Your task to perform on an android device: search for starred emails in the gmail app Image 0: 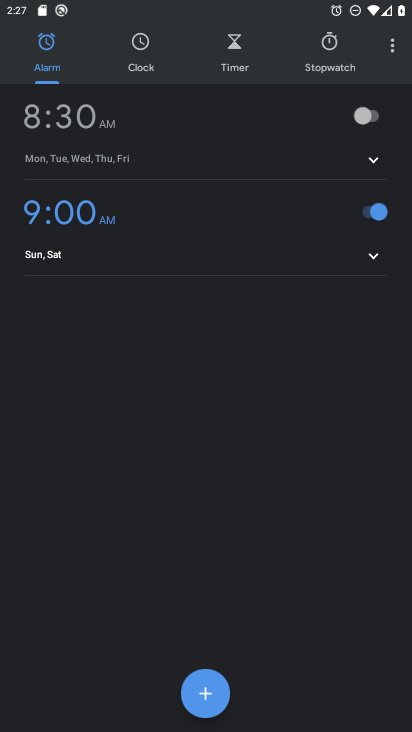
Step 0: press back button
Your task to perform on an android device: search for starred emails in the gmail app Image 1: 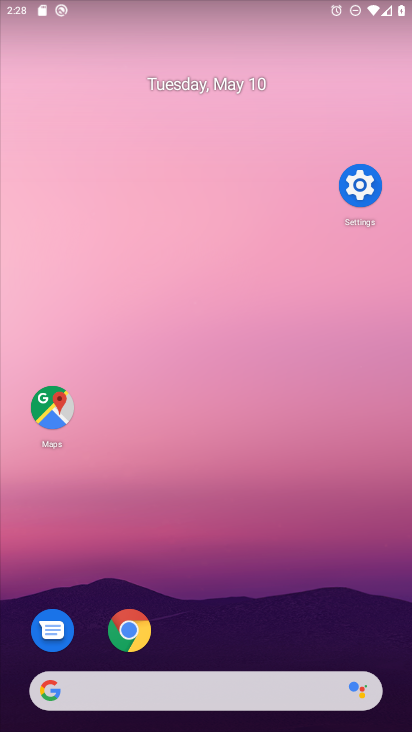
Step 1: drag from (304, 621) to (203, 207)
Your task to perform on an android device: search for starred emails in the gmail app Image 2: 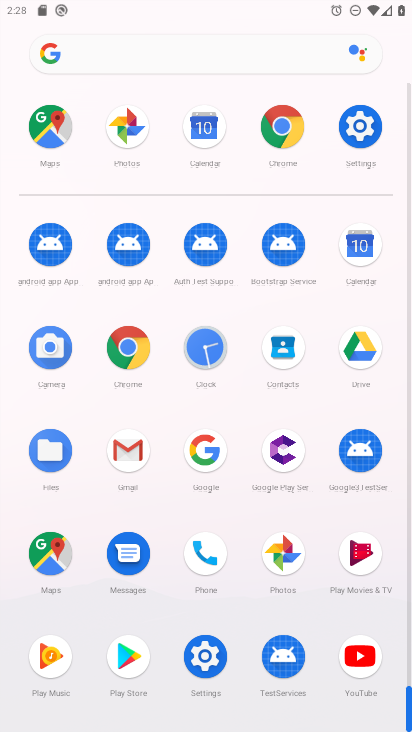
Step 2: click (119, 445)
Your task to perform on an android device: search for starred emails in the gmail app Image 3: 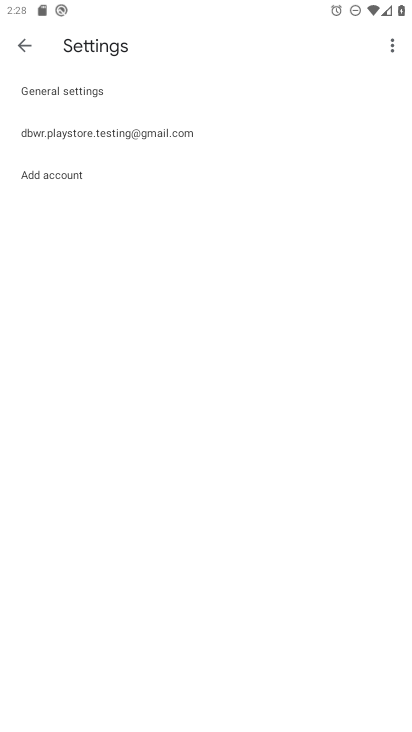
Step 3: click (92, 124)
Your task to perform on an android device: search for starred emails in the gmail app Image 4: 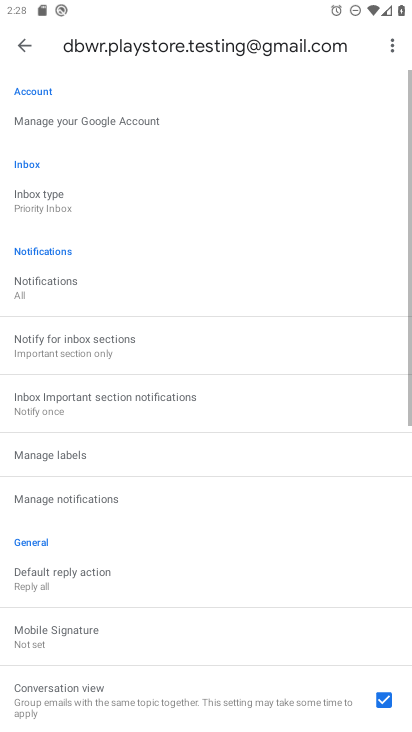
Step 4: click (23, 46)
Your task to perform on an android device: search for starred emails in the gmail app Image 5: 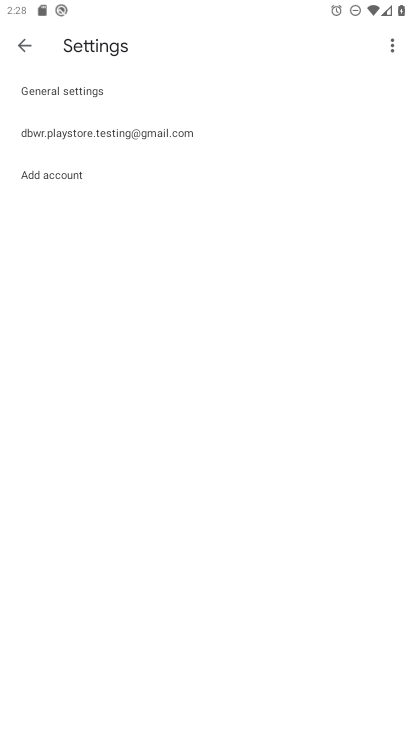
Step 5: click (26, 50)
Your task to perform on an android device: search for starred emails in the gmail app Image 6: 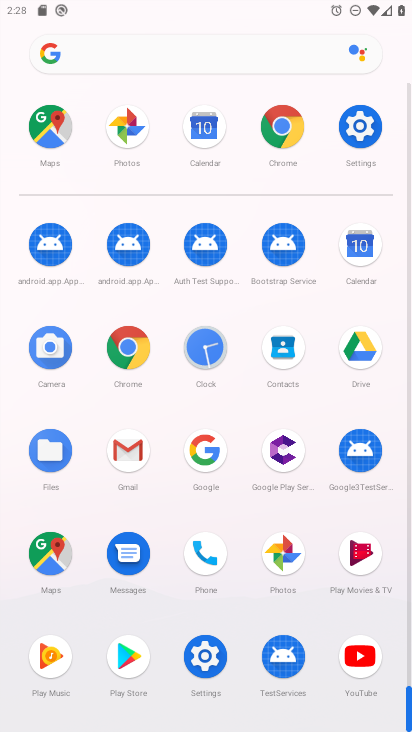
Step 6: click (131, 442)
Your task to perform on an android device: search for starred emails in the gmail app Image 7: 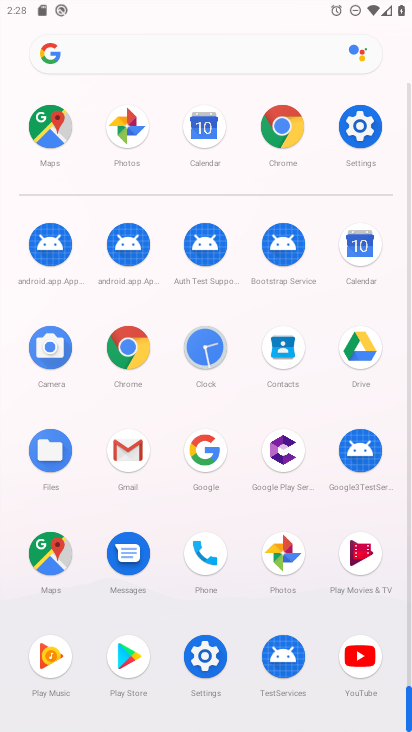
Step 7: click (131, 442)
Your task to perform on an android device: search for starred emails in the gmail app Image 8: 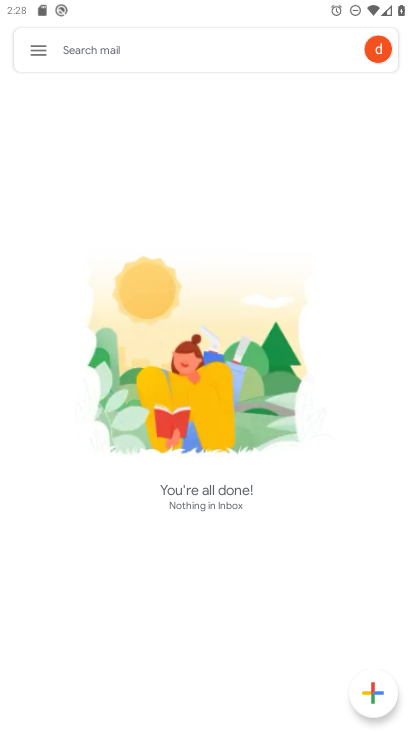
Step 8: drag from (36, 46) to (42, 148)
Your task to perform on an android device: search for starred emails in the gmail app Image 9: 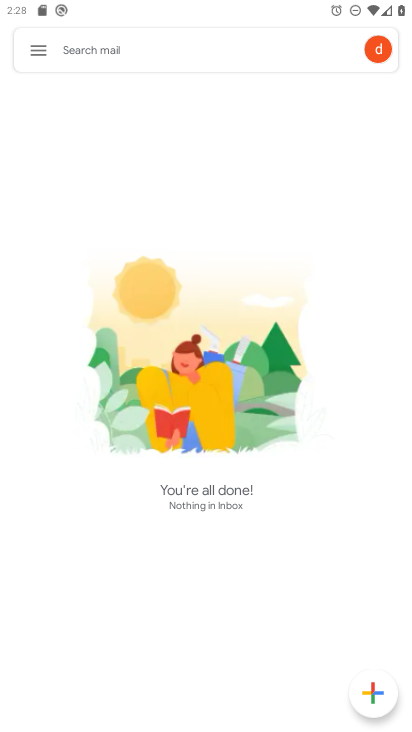
Step 9: click (39, 58)
Your task to perform on an android device: search for starred emails in the gmail app Image 10: 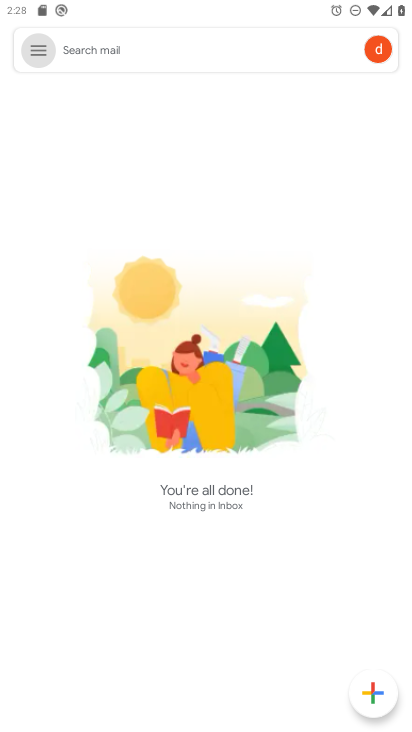
Step 10: drag from (45, 106) to (74, 313)
Your task to perform on an android device: search for starred emails in the gmail app Image 11: 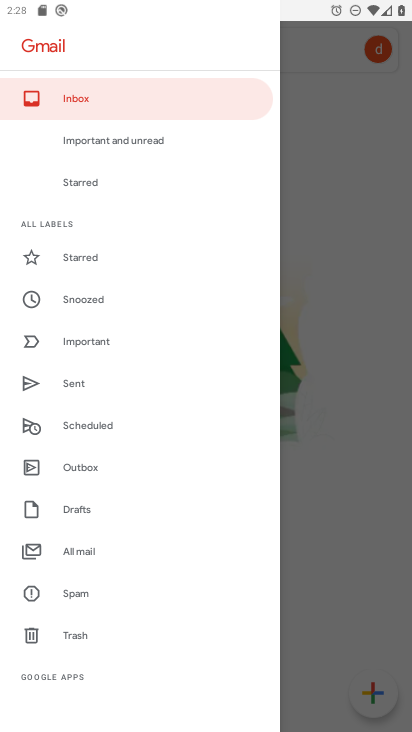
Step 11: click (81, 248)
Your task to perform on an android device: search for starred emails in the gmail app Image 12: 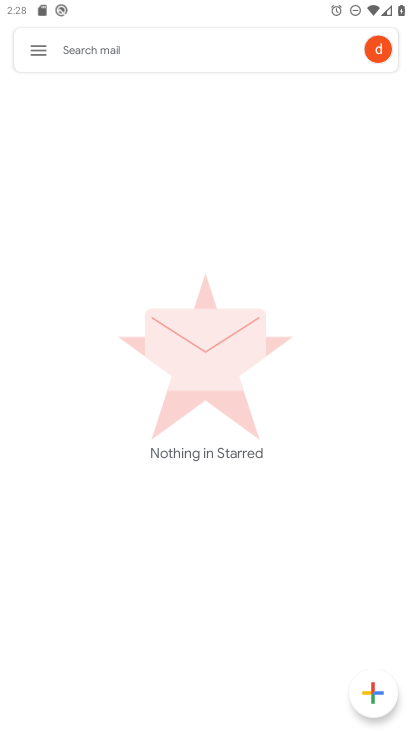
Step 12: task complete